Your task to perform on an android device: Go to sound settings Image 0: 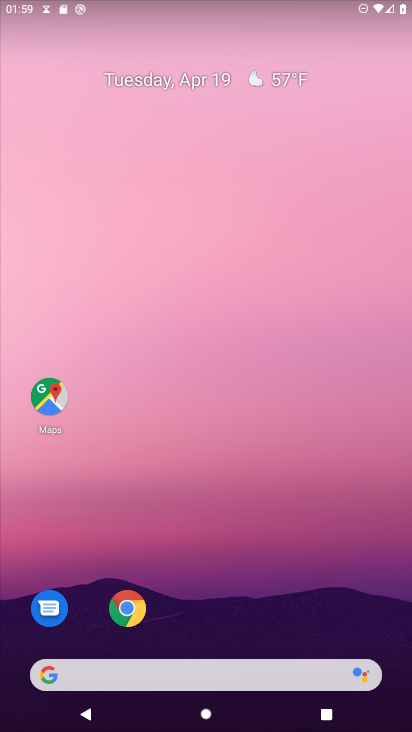
Step 0: drag from (228, 626) to (114, 143)
Your task to perform on an android device: Go to sound settings Image 1: 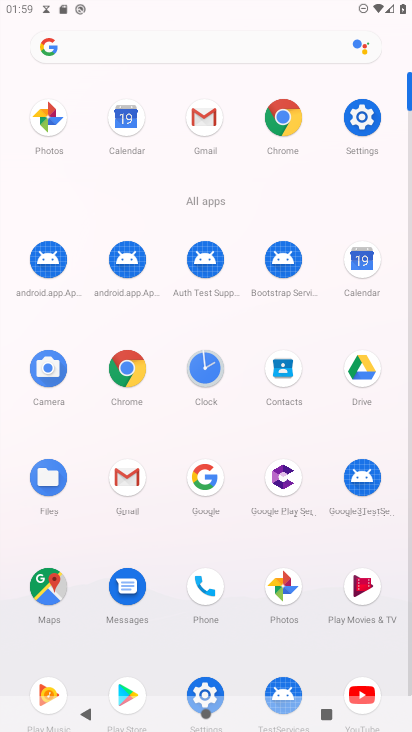
Step 1: click (371, 125)
Your task to perform on an android device: Go to sound settings Image 2: 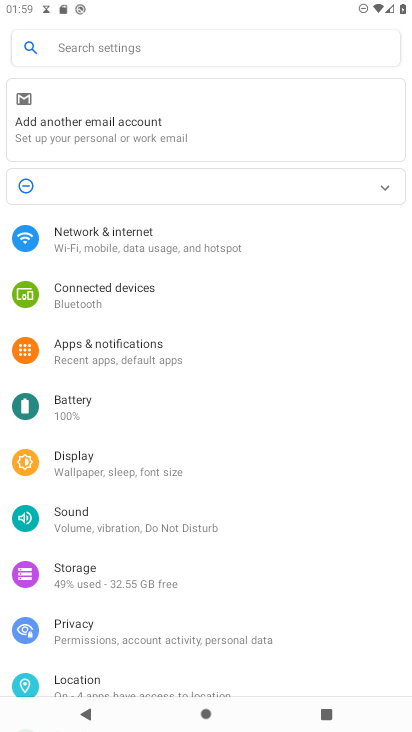
Step 2: click (124, 526)
Your task to perform on an android device: Go to sound settings Image 3: 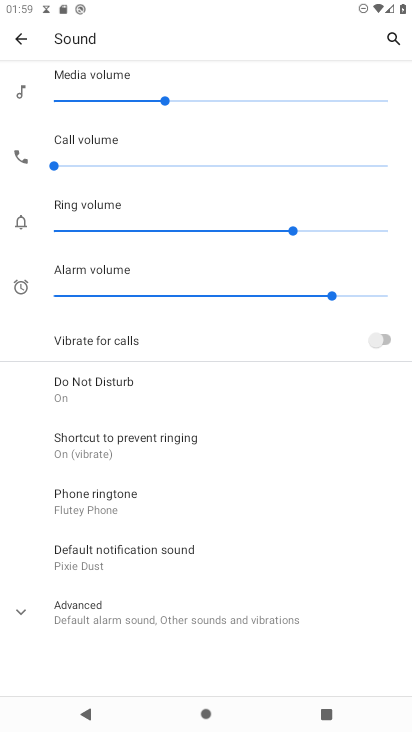
Step 3: click (95, 619)
Your task to perform on an android device: Go to sound settings Image 4: 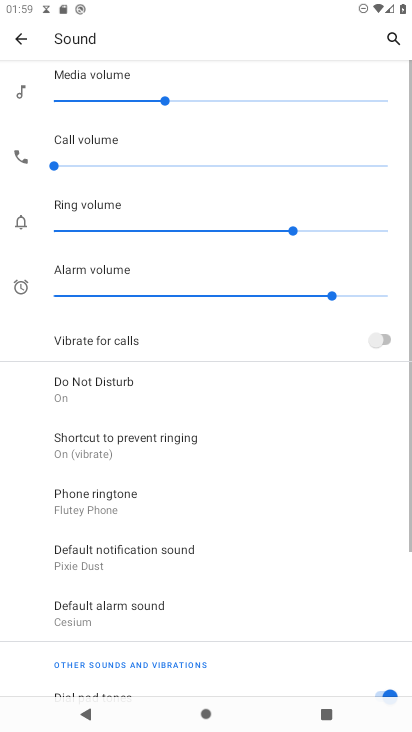
Step 4: task complete